Your task to perform on an android device: Open Chrome and go to settings Image 0: 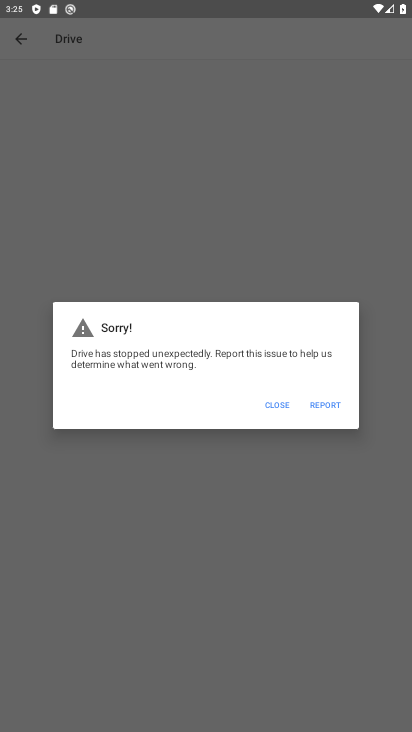
Step 0: press home button
Your task to perform on an android device: Open Chrome and go to settings Image 1: 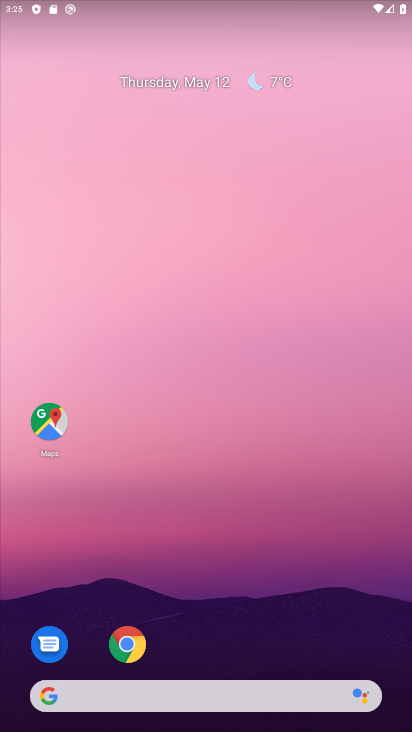
Step 1: click (131, 642)
Your task to perform on an android device: Open Chrome and go to settings Image 2: 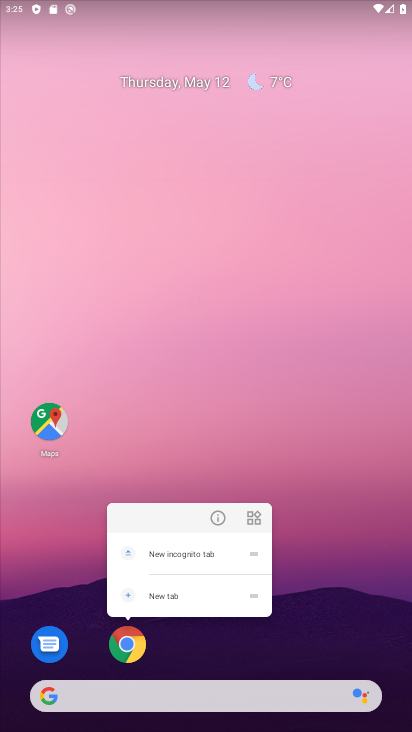
Step 2: click (124, 648)
Your task to perform on an android device: Open Chrome and go to settings Image 3: 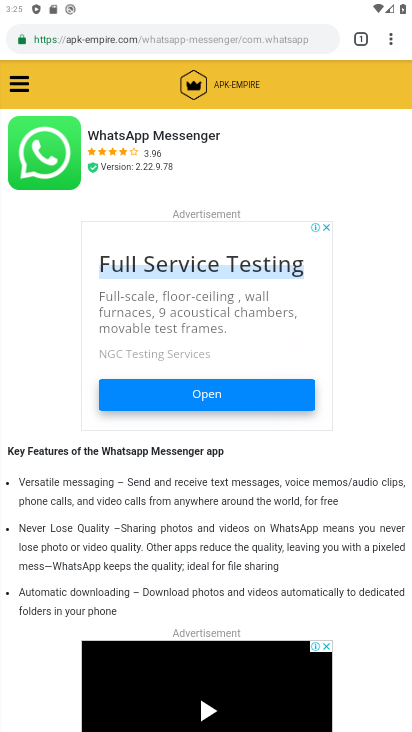
Step 3: click (392, 36)
Your task to perform on an android device: Open Chrome and go to settings Image 4: 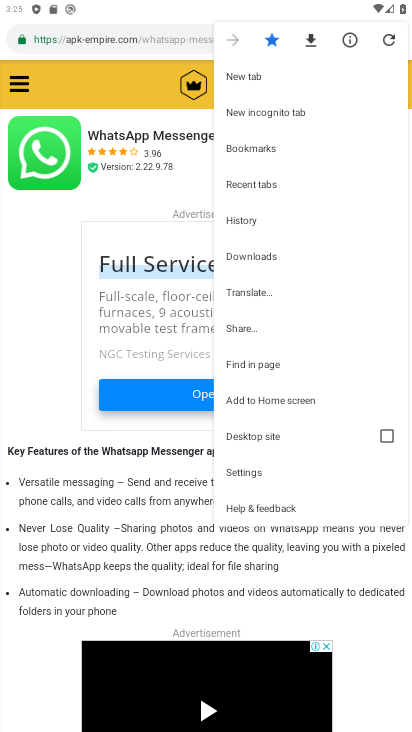
Step 4: click (267, 464)
Your task to perform on an android device: Open Chrome and go to settings Image 5: 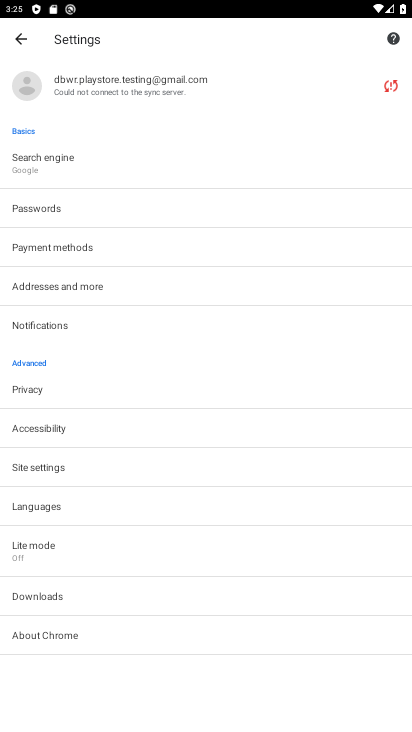
Step 5: task complete